Your task to perform on an android device: toggle sleep mode Image 0: 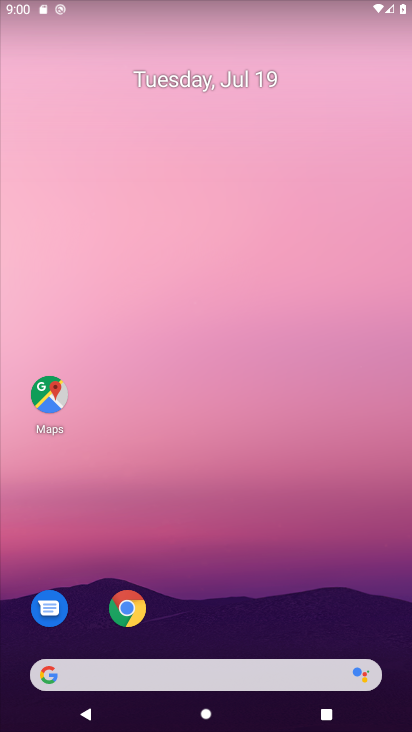
Step 0: drag from (285, 579) to (281, 317)
Your task to perform on an android device: toggle sleep mode Image 1: 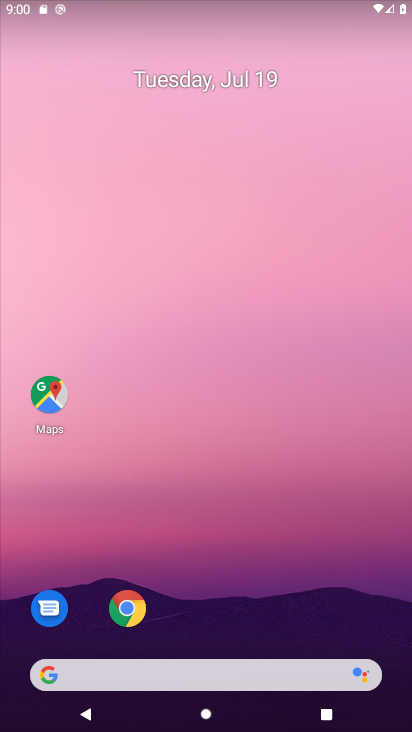
Step 1: drag from (255, 402) to (278, 162)
Your task to perform on an android device: toggle sleep mode Image 2: 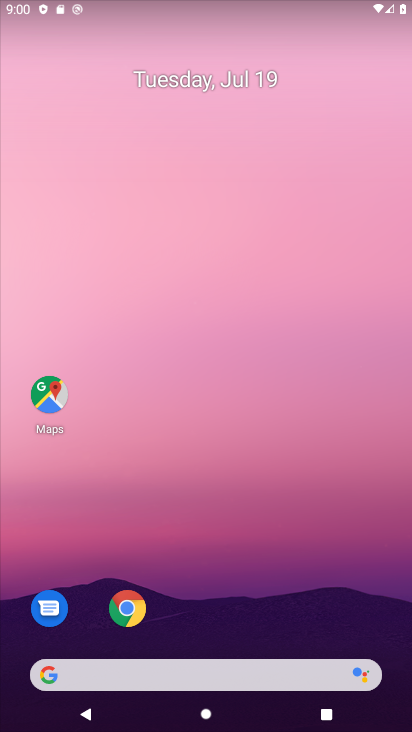
Step 2: drag from (319, 605) to (316, 248)
Your task to perform on an android device: toggle sleep mode Image 3: 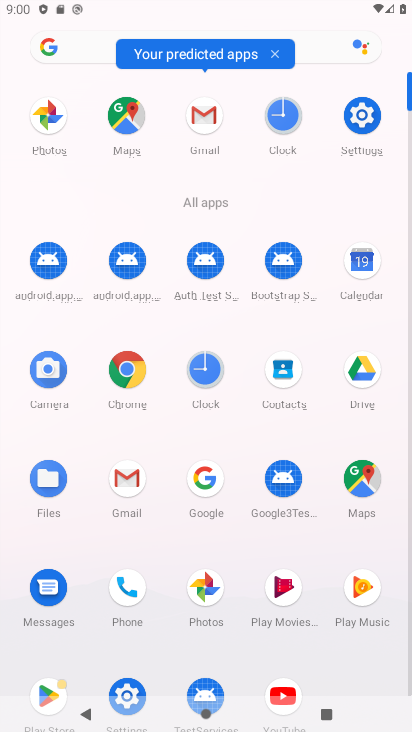
Step 3: click (358, 116)
Your task to perform on an android device: toggle sleep mode Image 4: 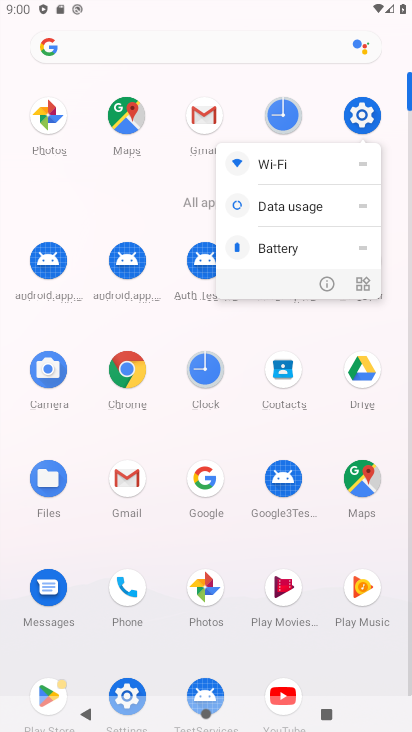
Step 4: click (362, 125)
Your task to perform on an android device: toggle sleep mode Image 5: 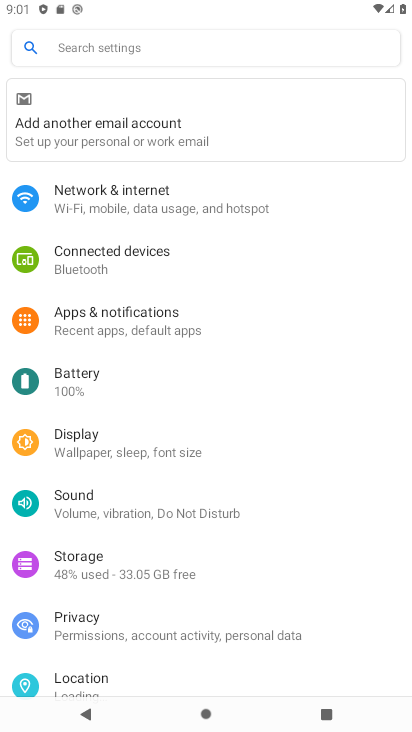
Step 5: click (116, 45)
Your task to perform on an android device: toggle sleep mode Image 6: 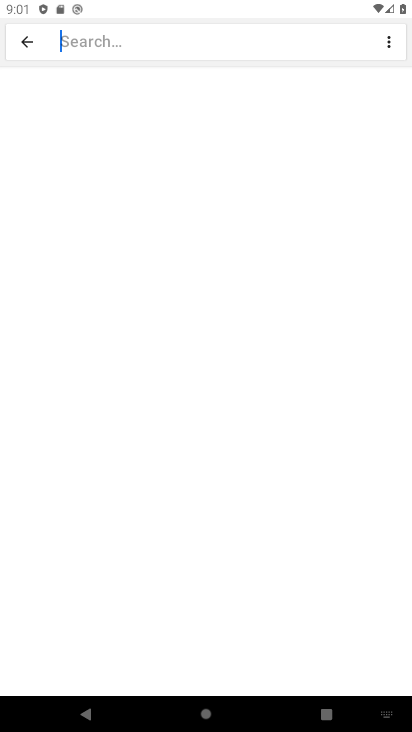
Step 6: type "sleep"
Your task to perform on an android device: toggle sleep mode Image 7: 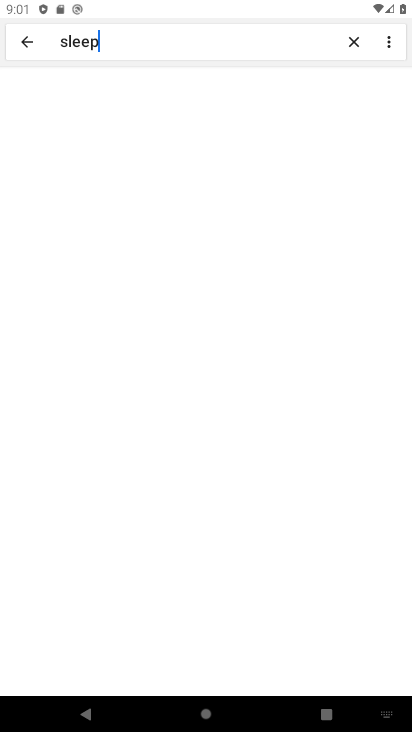
Step 7: type ""
Your task to perform on an android device: toggle sleep mode Image 8: 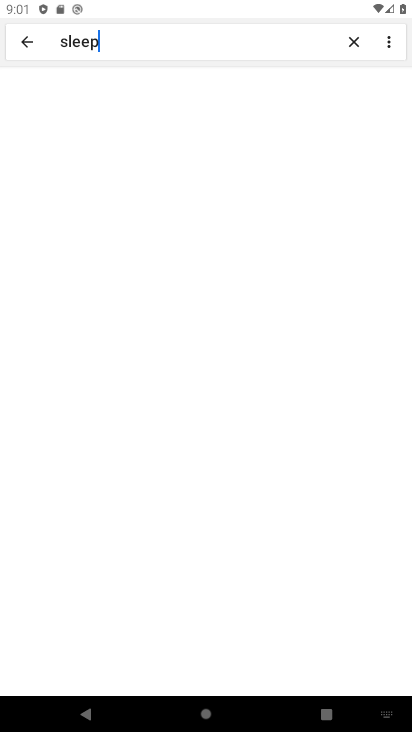
Step 8: press enter
Your task to perform on an android device: toggle sleep mode Image 9: 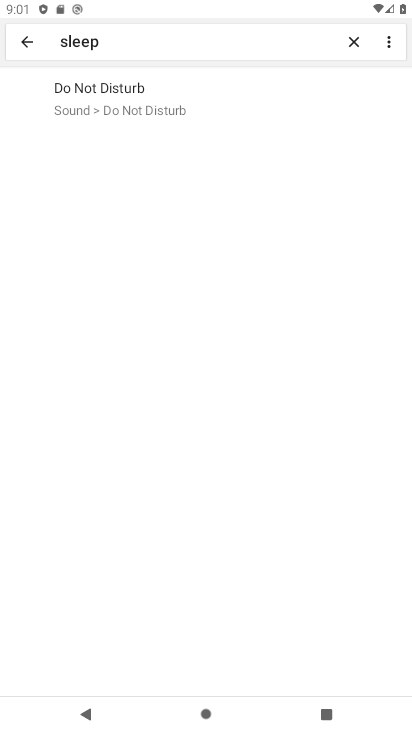
Step 9: click (120, 100)
Your task to perform on an android device: toggle sleep mode Image 10: 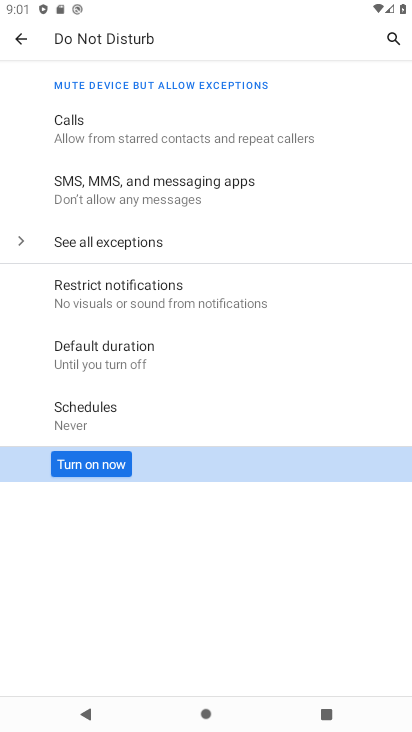
Step 10: task complete